Your task to perform on an android device: Go to settings Image 0: 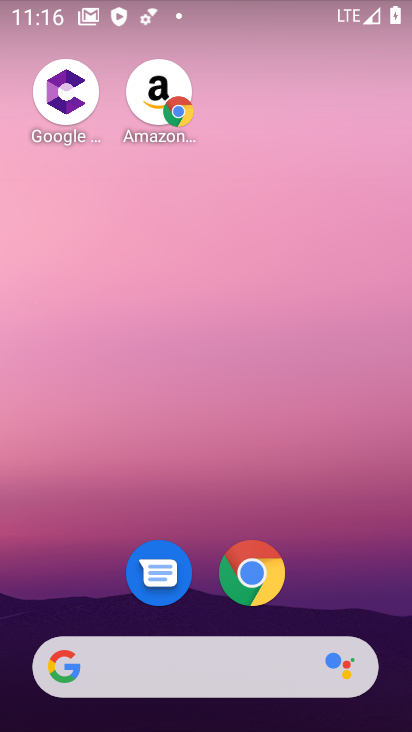
Step 0: drag from (314, 533) to (172, 10)
Your task to perform on an android device: Go to settings Image 1: 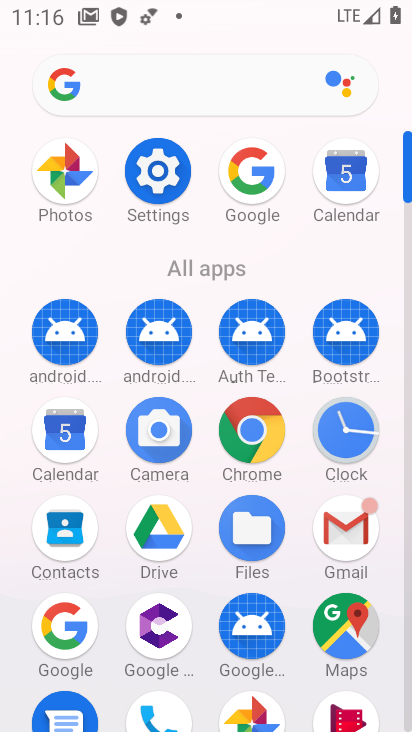
Step 1: click (161, 168)
Your task to perform on an android device: Go to settings Image 2: 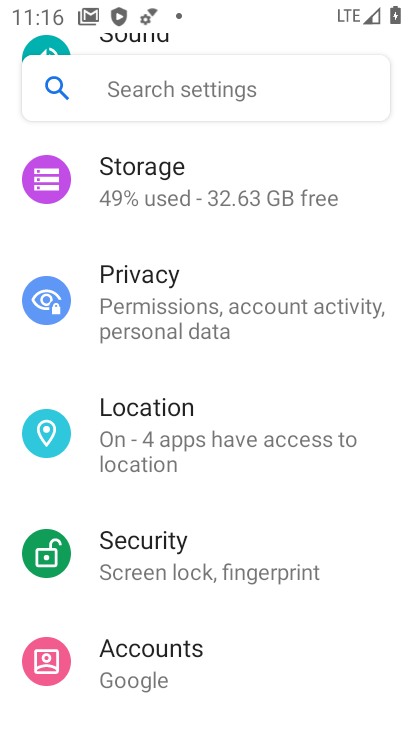
Step 2: task complete